Your task to perform on an android device: remove spam from my inbox in the gmail app Image 0: 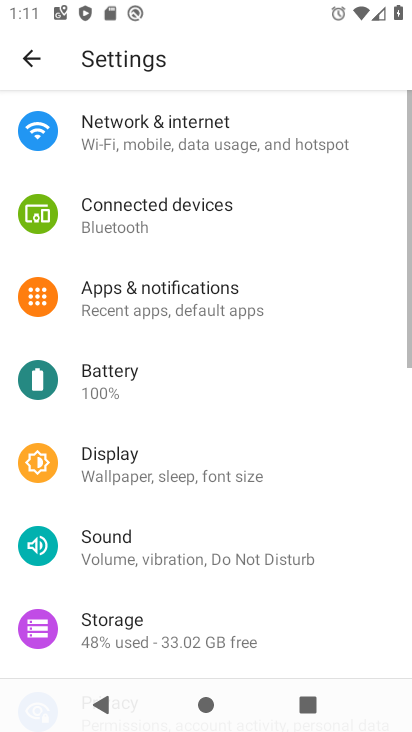
Step 0: press home button
Your task to perform on an android device: remove spam from my inbox in the gmail app Image 1: 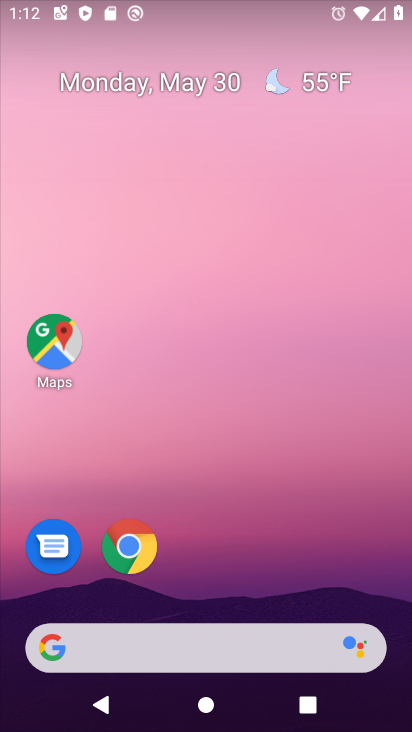
Step 1: drag from (249, 607) to (249, 141)
Your task to perform on an android device: remove spam from my inbox in the gmail app Image 2: 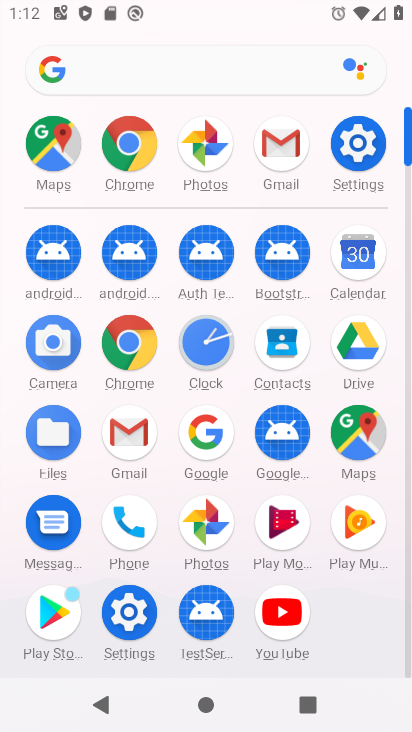
Step 2: click (281, 143)
Your task to perform on an android device: remove spam from my inbox in the gmail app Image 3: 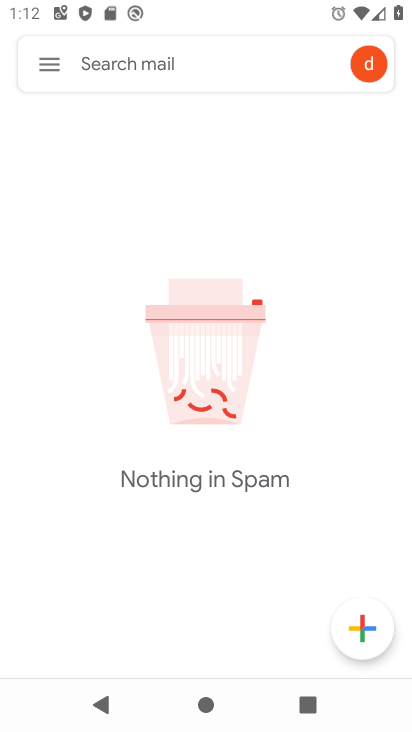
Step 3: click (46, 71)
Your task to perform on an android device: remove spam from my inbox in the gmail app Image 4: 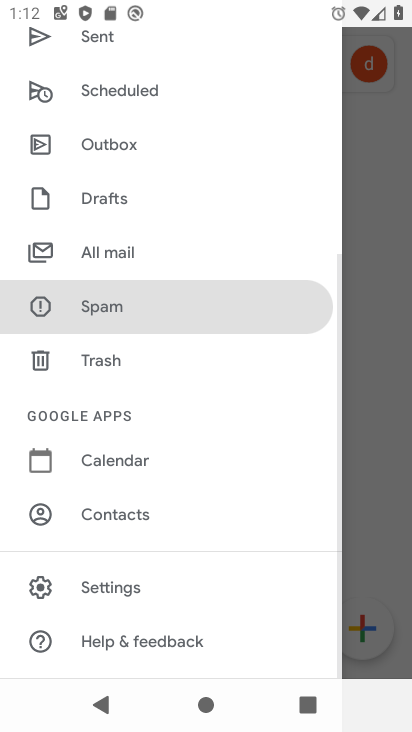
Step 4: click (108, 315)
Your task to perform on an android device: remove spam from my inbox in the gmail app Image 5: 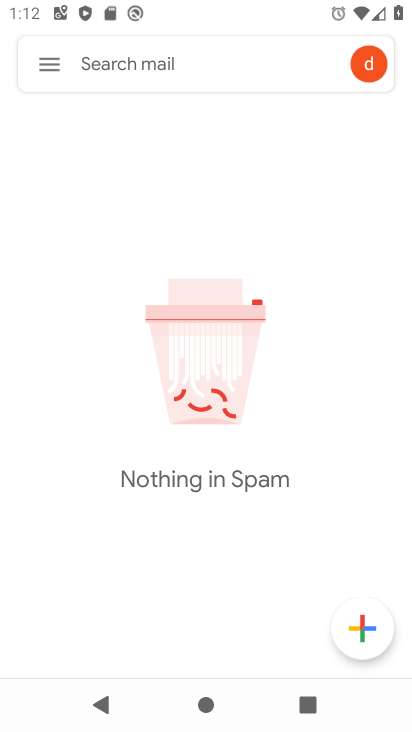
Step 5: task complete